Your task to perform on an android device: Open my contact list Image 0: 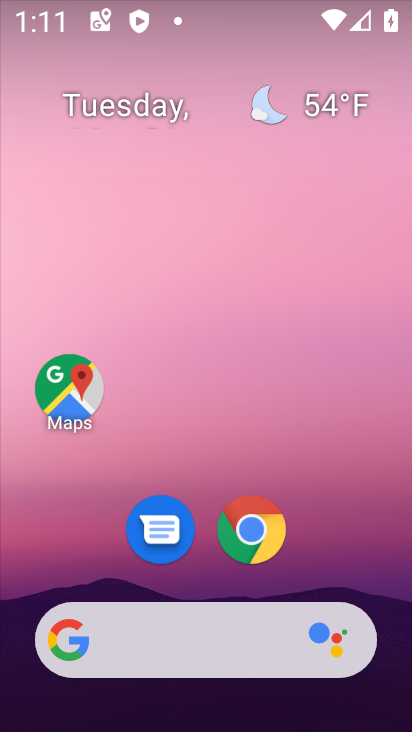
Step 0: drag from (329, 561) to (259, 119)
Your task to perform on an android device: Open my contact list Image 1: 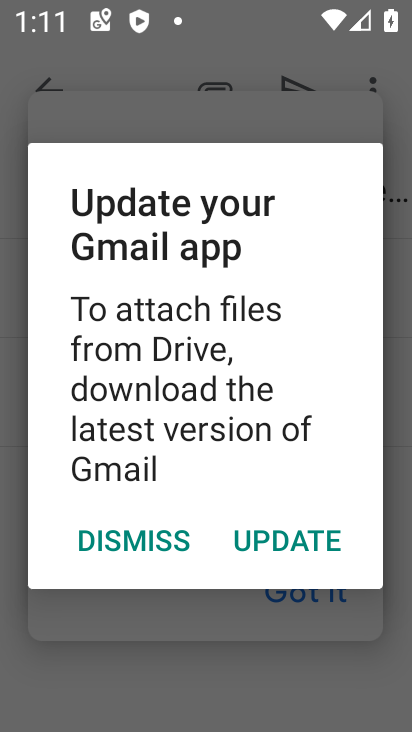
Step 1: press home button
Your task to perform on an android device: Open my contact list Image 2: 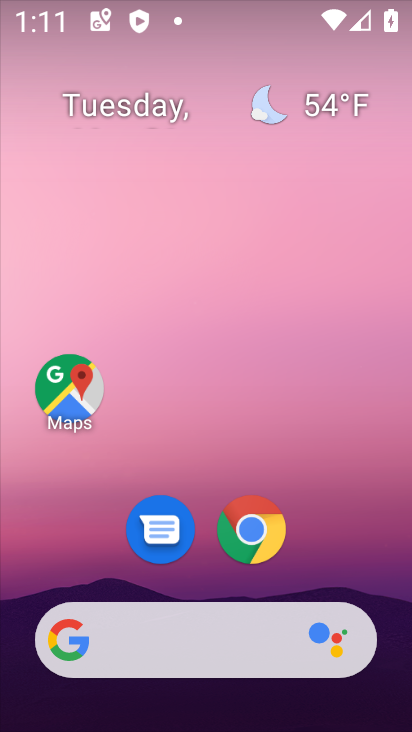
Step 2: drag from (327, 545) to (251, 83)
Your task to perform on an android device: Open my contact list Image 3: 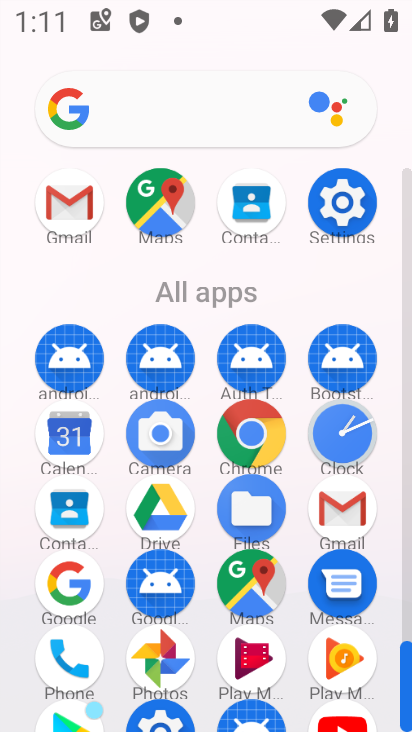
Step 3: click (68, 506)
Your task to perform on an android device: Open my contact list Image 4: 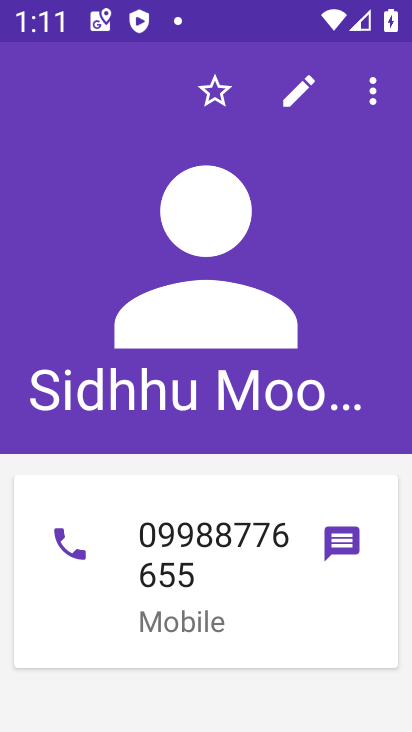
Step 4: task complete